Your task to perform on an android device: open app "Skype" (install if not already installed) and enter user name: "rumor@gmail.com" and password: "kinsman" Image 0: 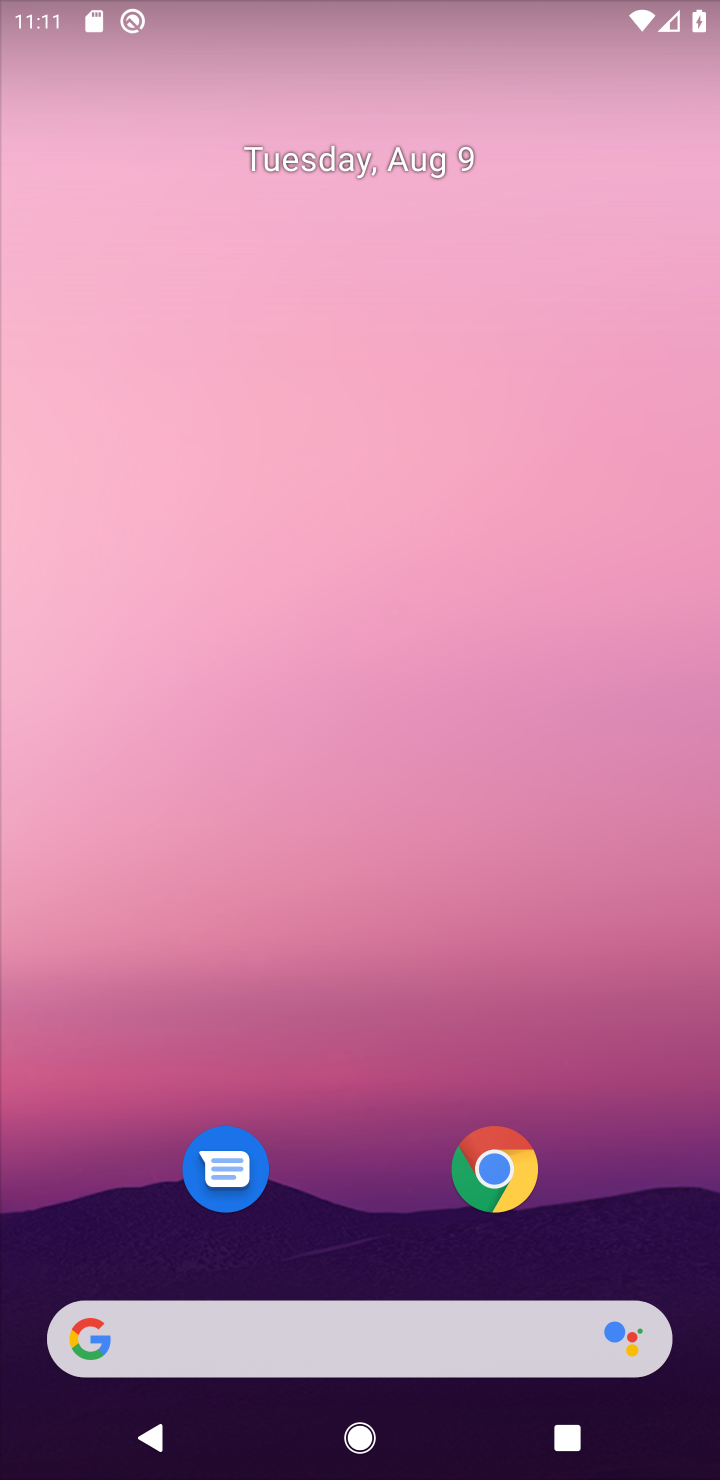
Step 0: drag from (602, 1206) to (604, 170)
Your task to perform on an android device: open app "Skype" (install if not already installed) and enter user name: "rumor@gmail.com" and password: "kinsman" Image 1: 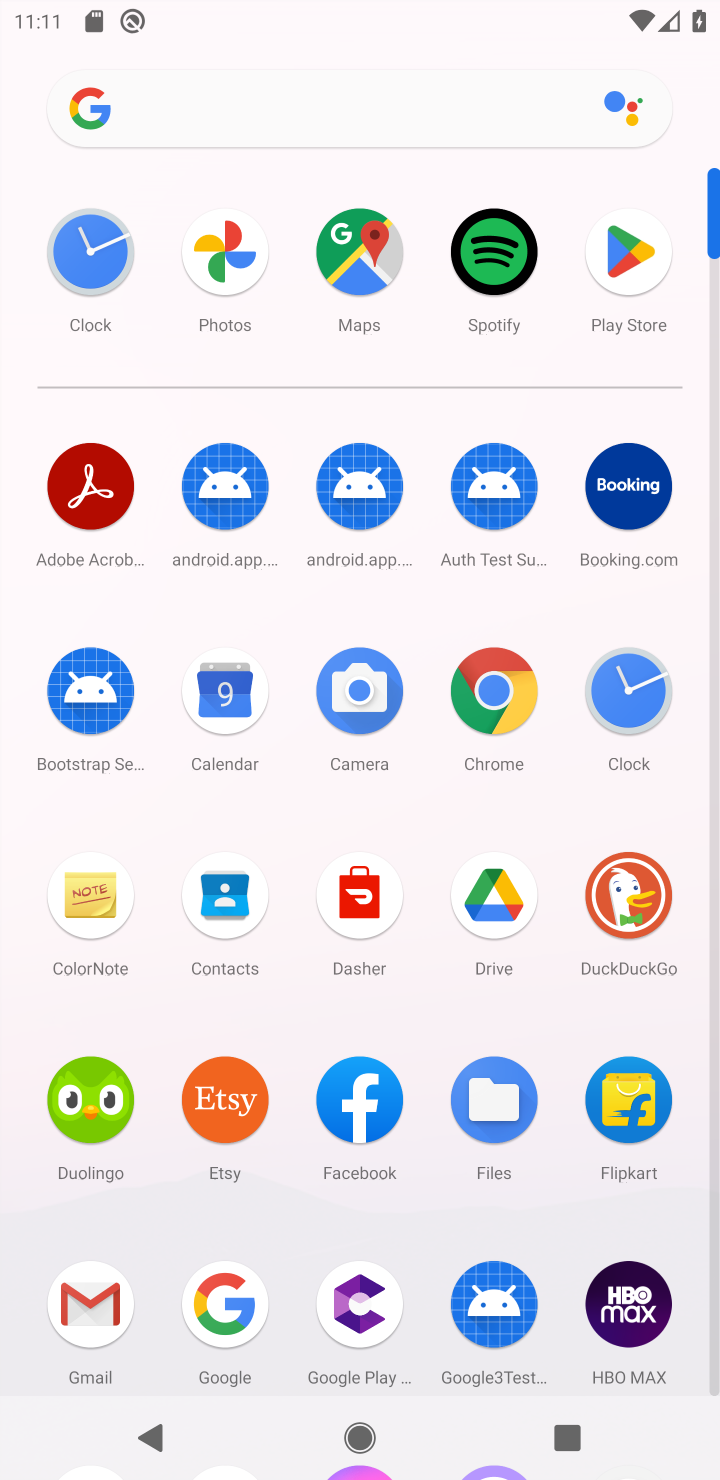
Step 1: click (630, 264)
Your task to perform on an android device: open app "Skype" (install if not already installed) and enter user name: "rumor@gmail.com" and password: "kinsman" Image 2: 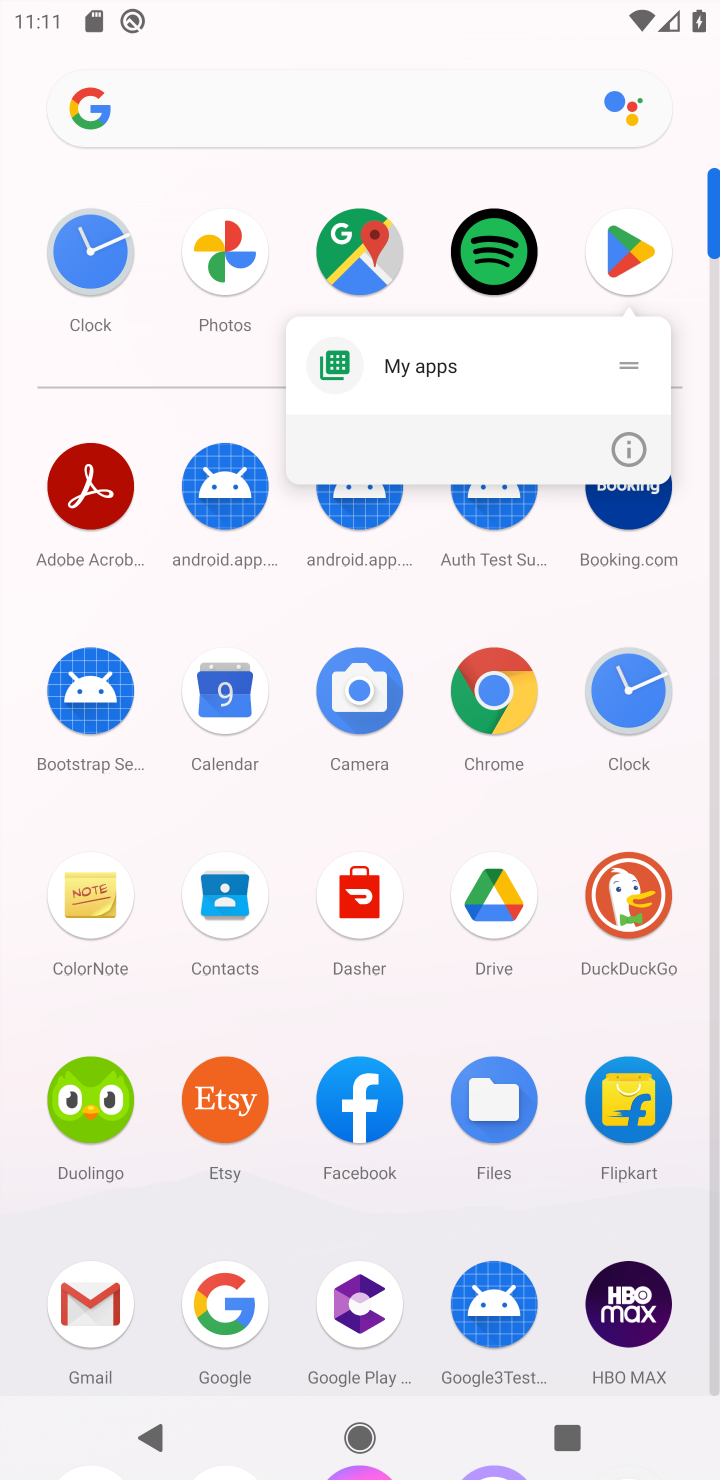
Step 2: click (617, 245)
Your task to perform on an android device: open app "Skype" (install if not already installed) and enter user name: "rumor@gmail.com" and password: "kinsman" Image 3: 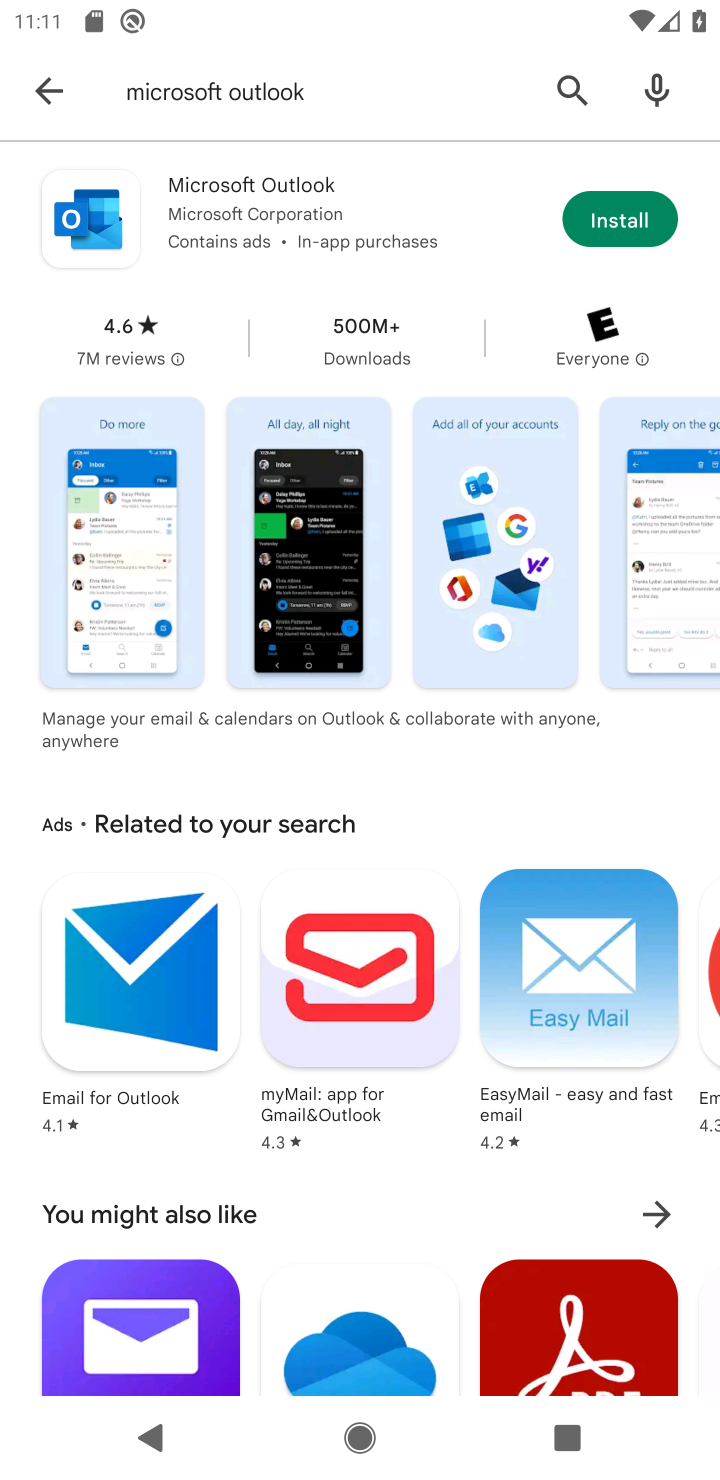
Step 3: click (575, 75)
Your task to perform on an android device: open app "Skype" (install if not already installed) and enter user name: "rumor@gmail.com" and password: "kinsman" Image 4: 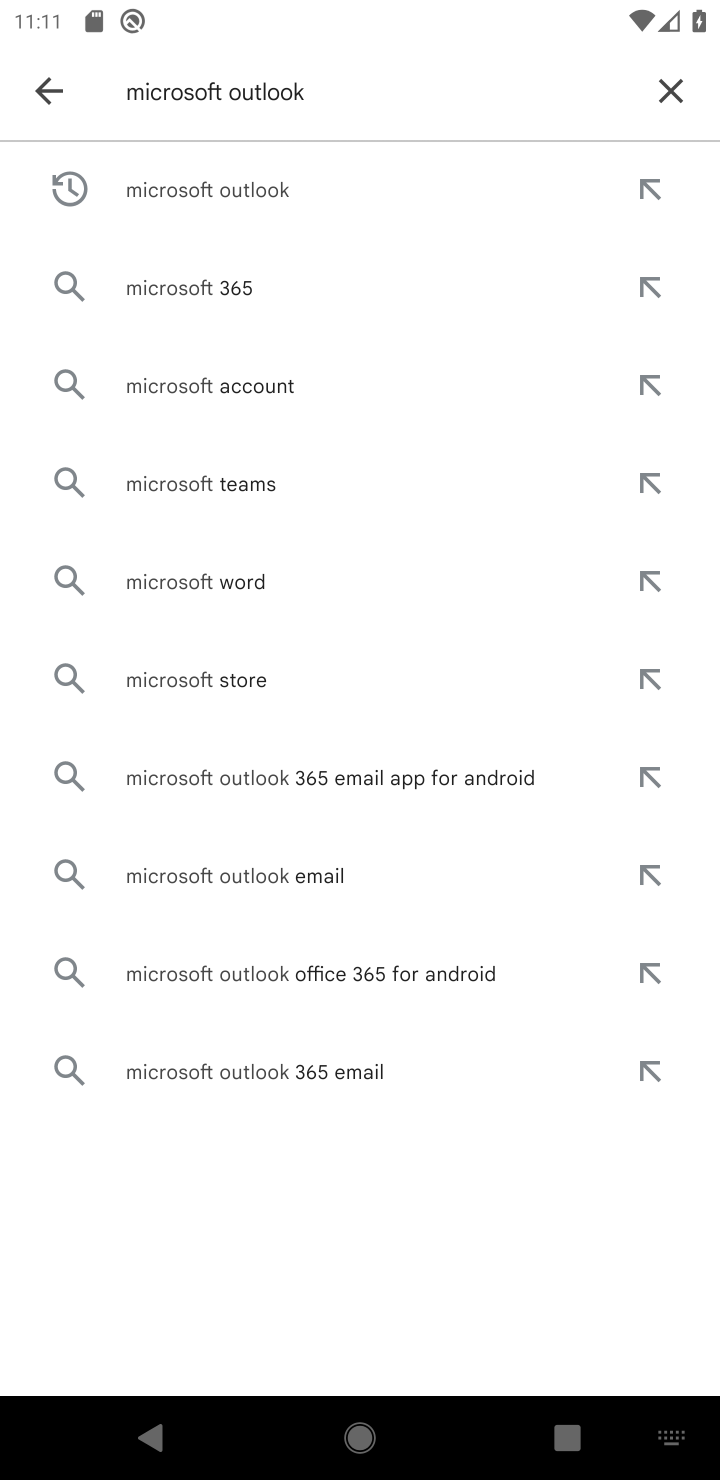
Step 4: click (668, 75)
Your task to perform on an android device: open app "Skype" (install if not already installed) and enter user name: "rumor@gmail.com" and password: "kinsman" Image 5: 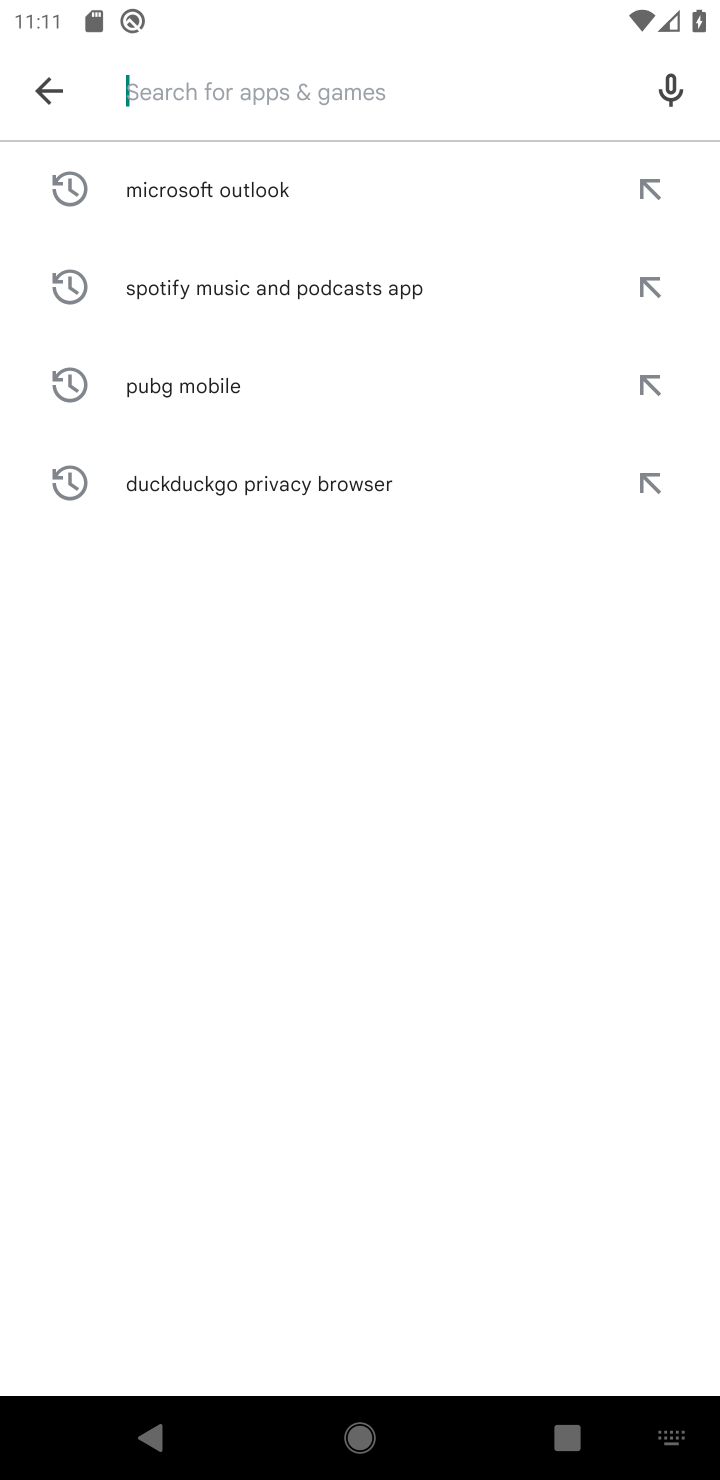
Step 5: type "skype"
Your task to perform on an android device: open app "Skype" (install if not already installed) and enter user name: "rumor@gmail.com" and password: "kinsman" Image 6: 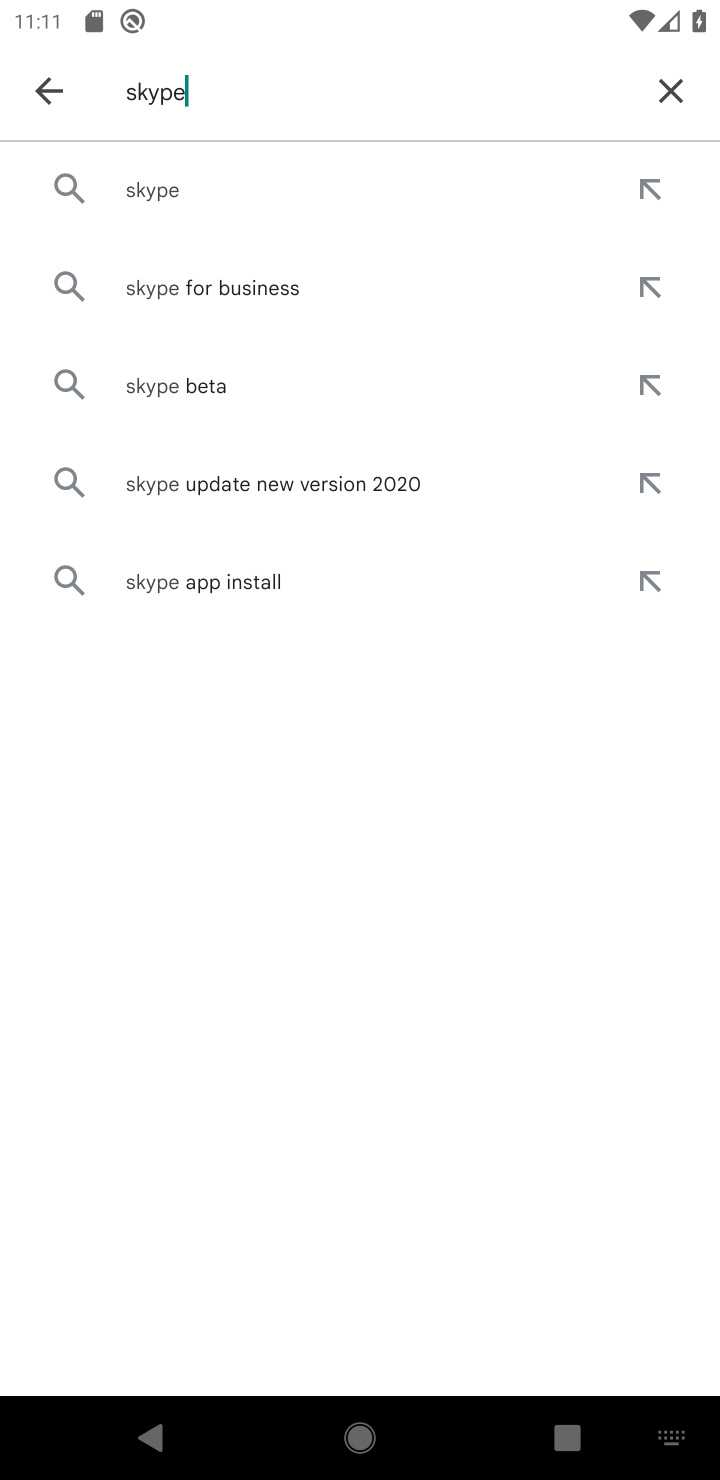
Step 6: click (180, 173)
Your task to perform on an android device: open app "Skype" (install if not already installed) and enter user name: "rumor@gmail.com" and password: "kinsman" Image 7: 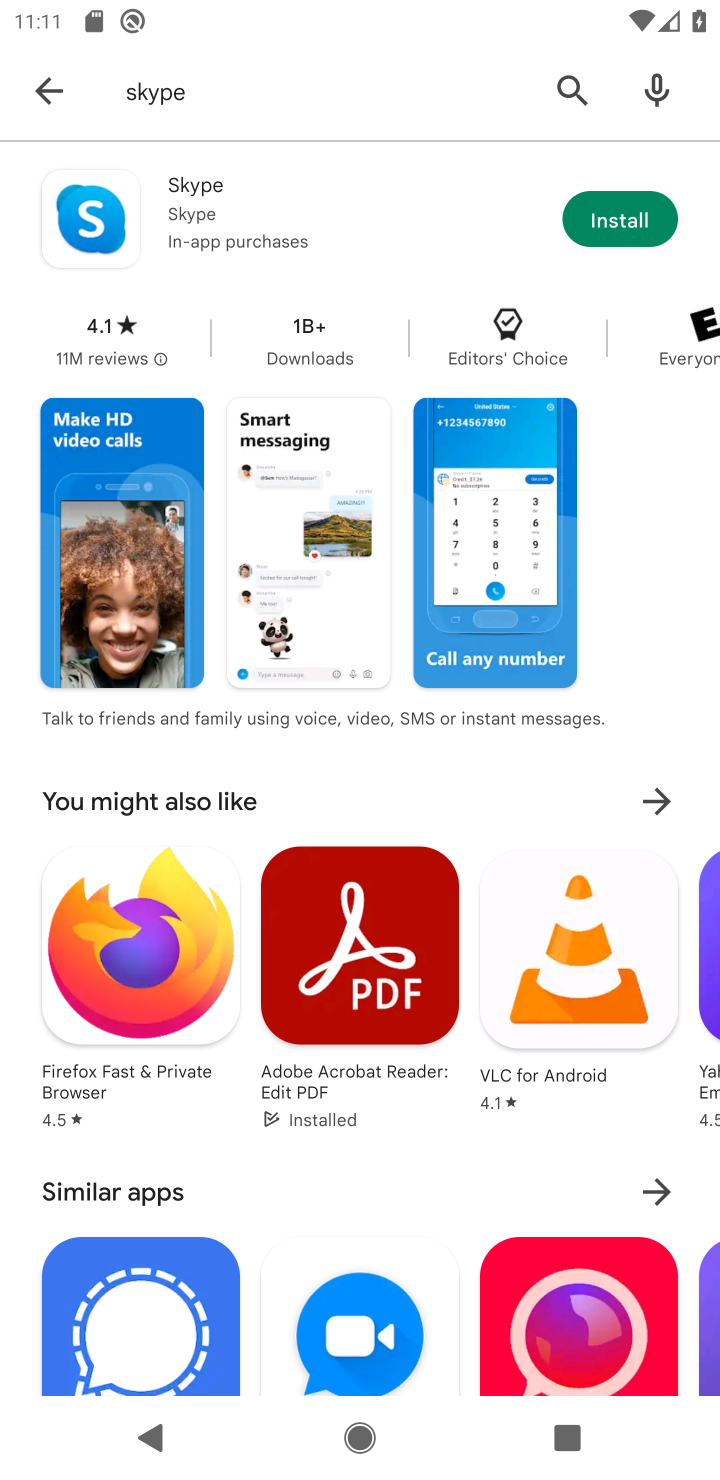
Step 7: click (619, 225)
Your task to perform on an android device: open app "Skype" (install if not already installed) and enter user name: "rumor@gmail.com" and password: "kinsman" Image 8: 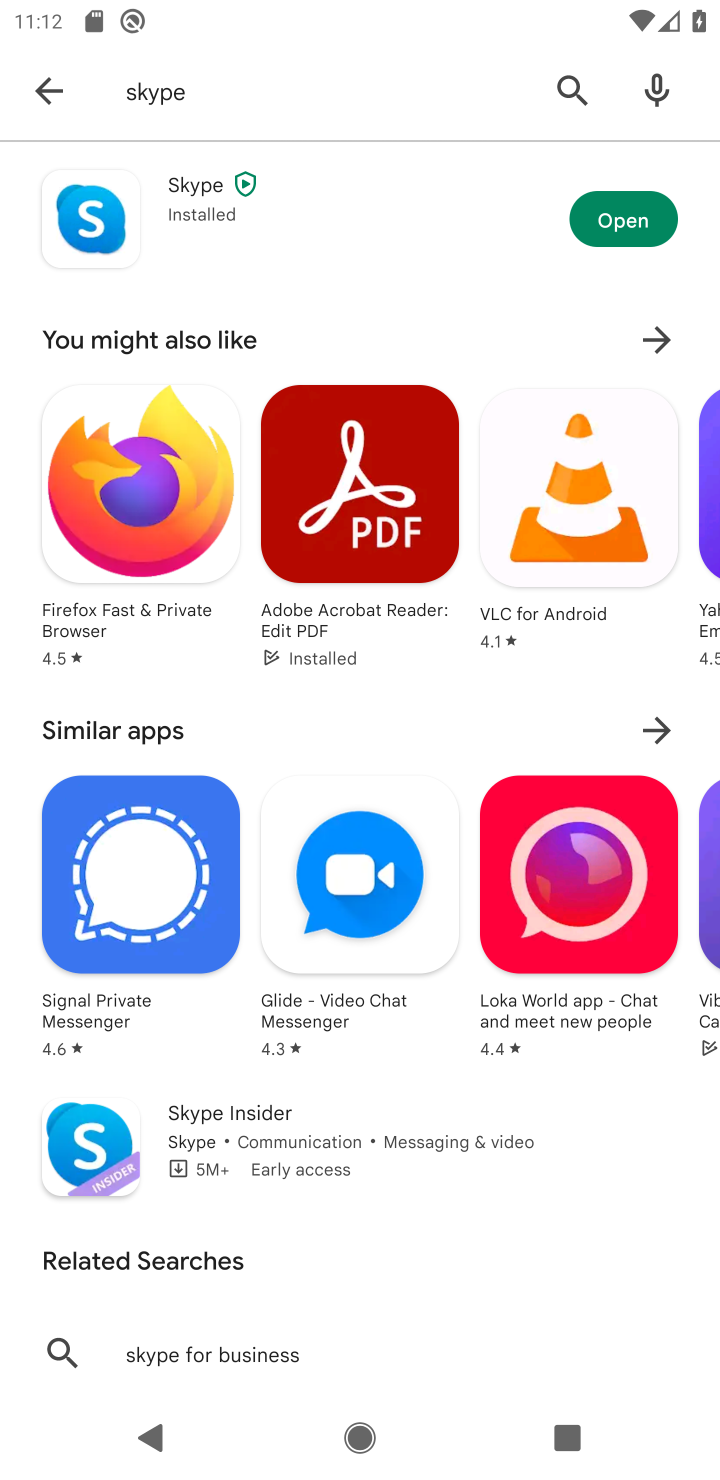
Step 8: click (644, 224)
Your task to perform on an android device: open app "Skype" (install if not already installed) and enter user name: "rumor@gmail.com" and password: "kinsman" Image 9: 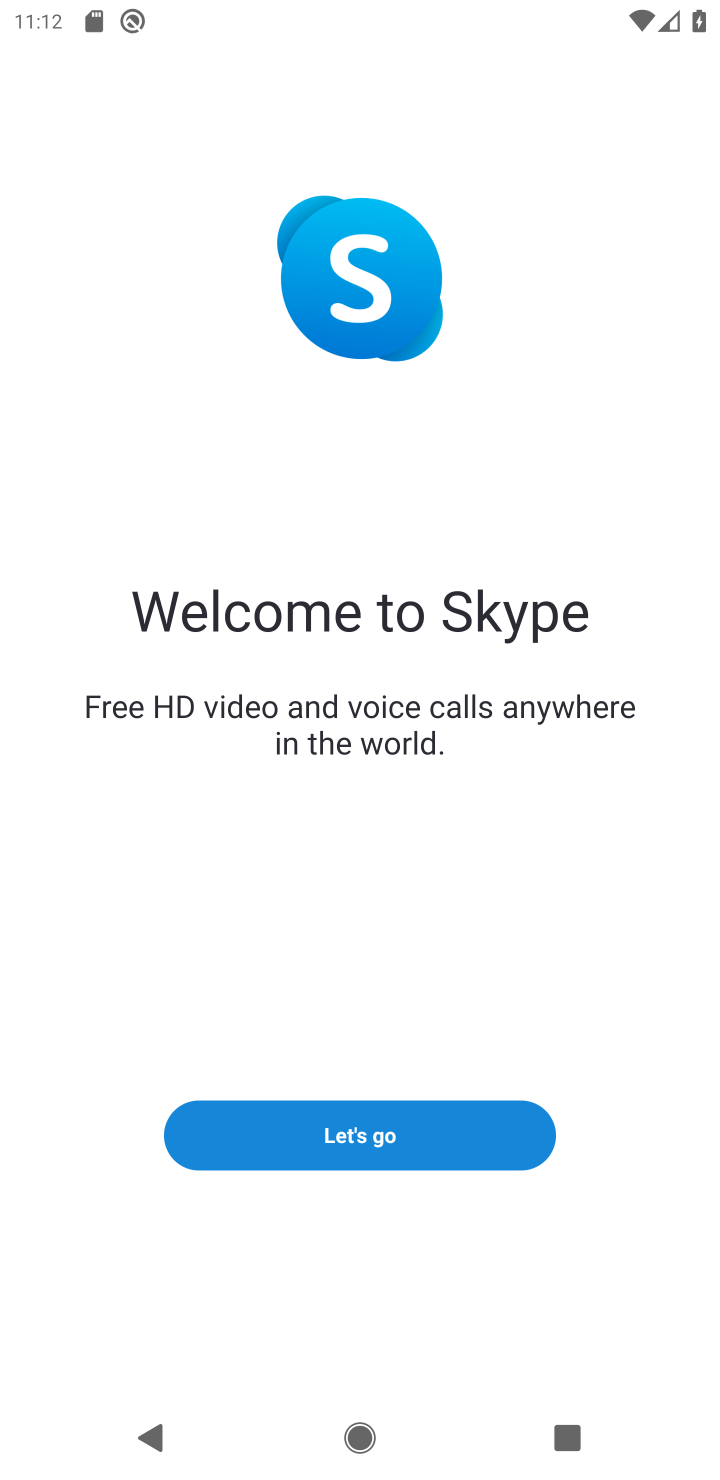
Step 9: click (433, 1133)
Your task to perform on an android device: open app "Skype" (install if not already installed) and enter user name: "rumor@gmail.com" and password: "kinsman" Image 10: 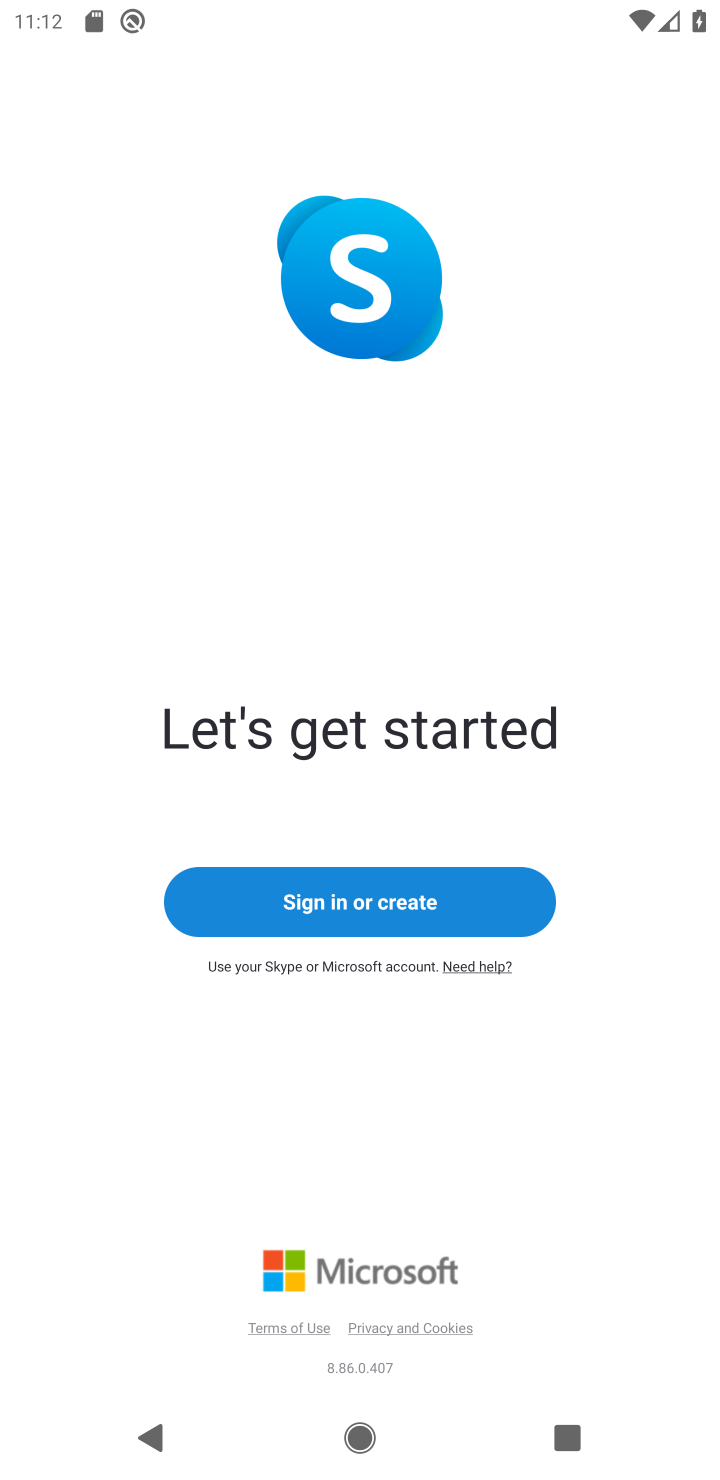
Step 10: click (377, 905)
Your task to perform on an android device: open app "Skype" (install if not already installed) and enter user name: "rumor@gmail.com" and password: "kinsman" Image 11: 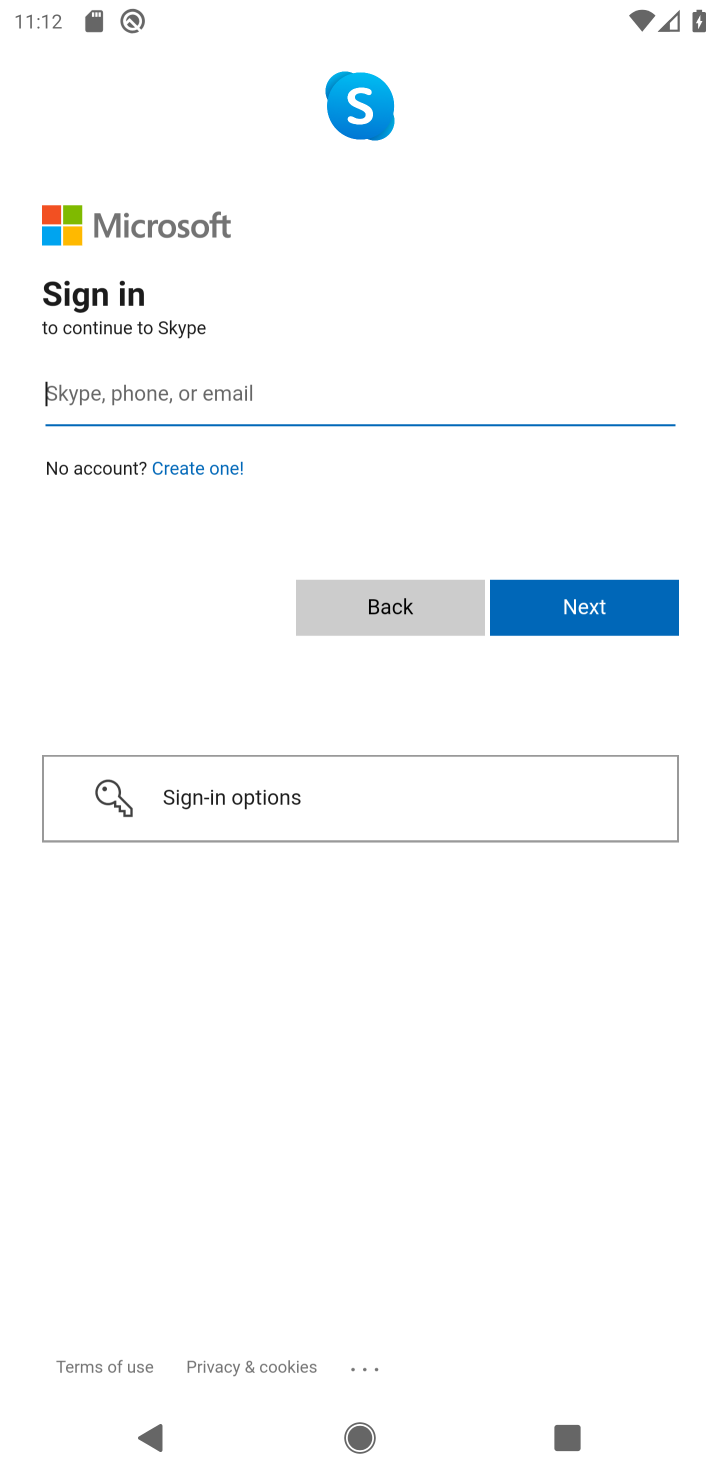
Step 11: click (268, 397)
Your task to perform on an android device: open app "Skype" (install if not already installed) and enter user name: "rumor@gmail.com" and password: "kinsman" Image 12: 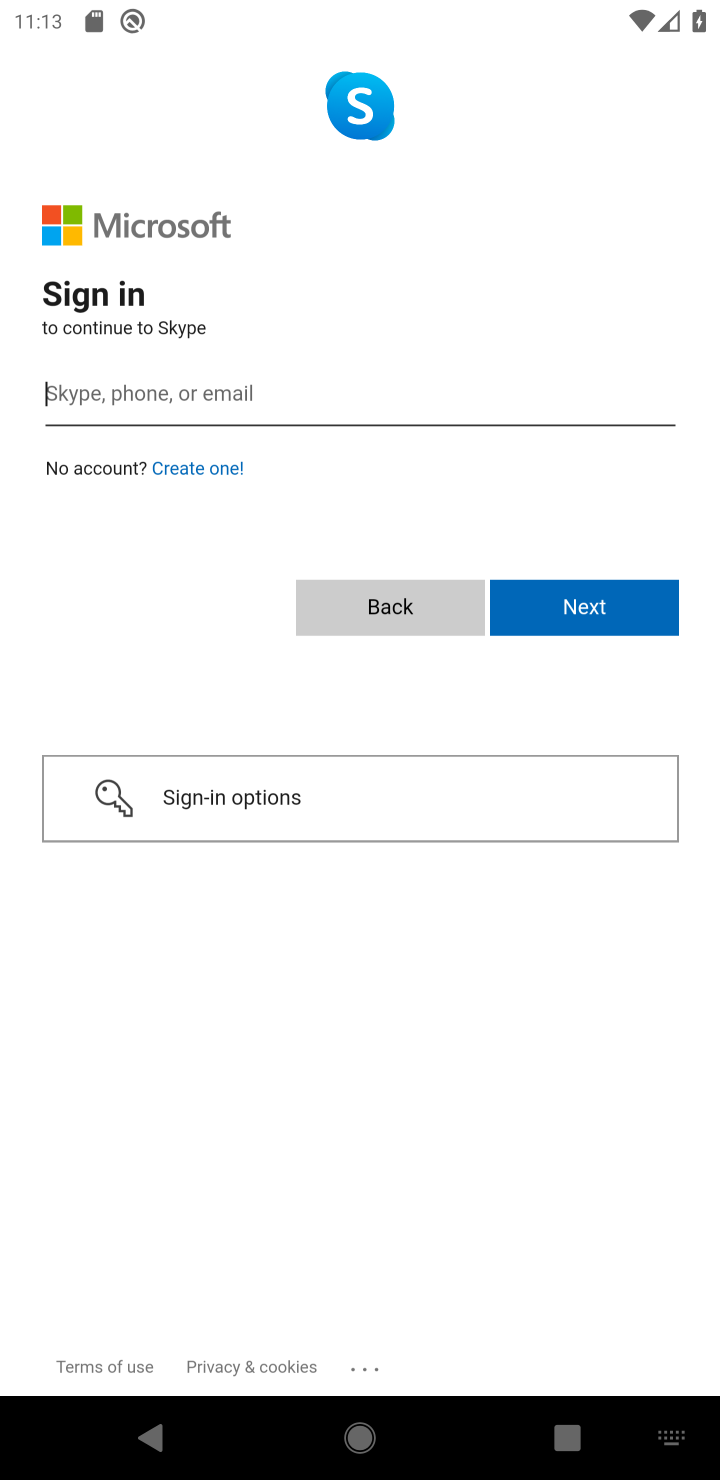
Step 12: type "rumor@gmail.com"
Your task to perform on an android device: open app "Skype" (install if not already installed) and enter user name: "rumor@gmail.com" and password: "kinsman" Image 13: 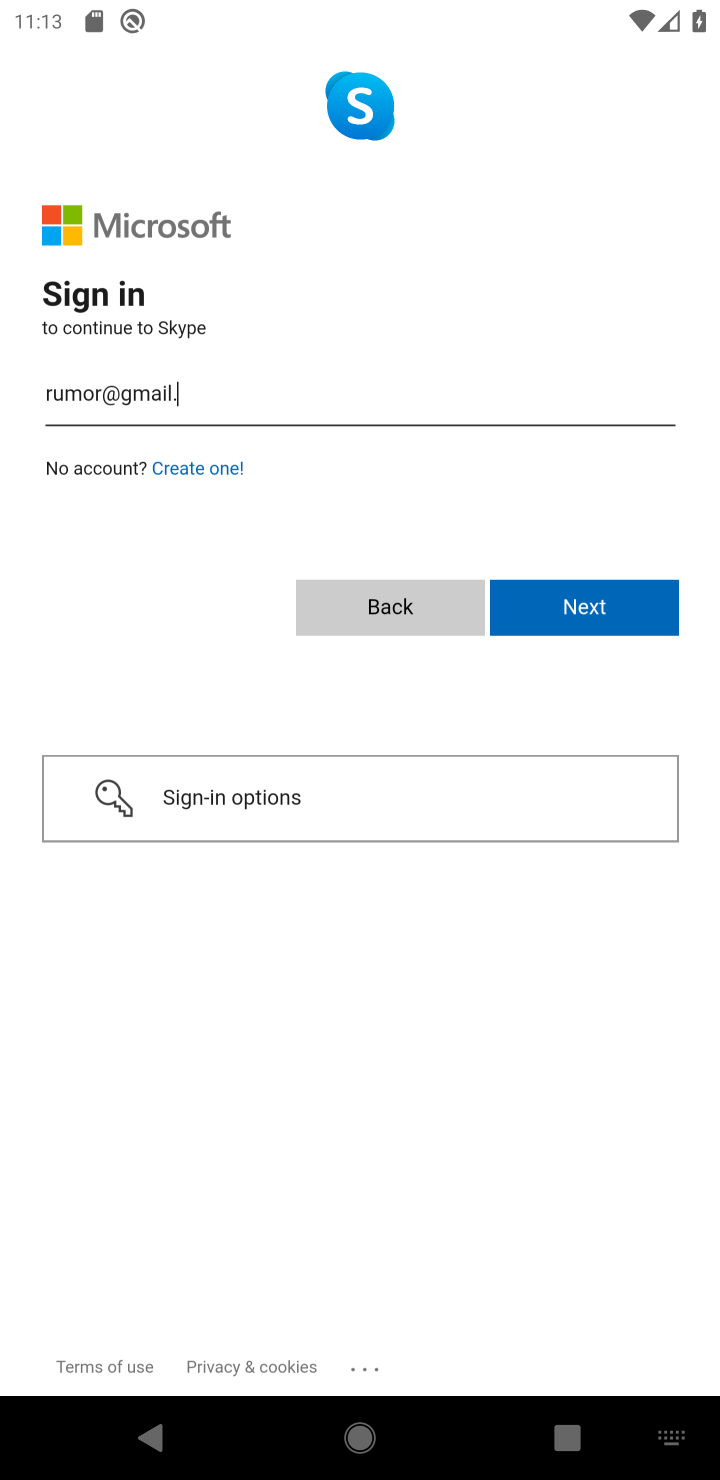
Step 13: press enter
Your task to perform on an android device: open app "Skype" (install if not already installed) and enter user name: "rumor@gmail.com" and password: "kinsman" Image 14: 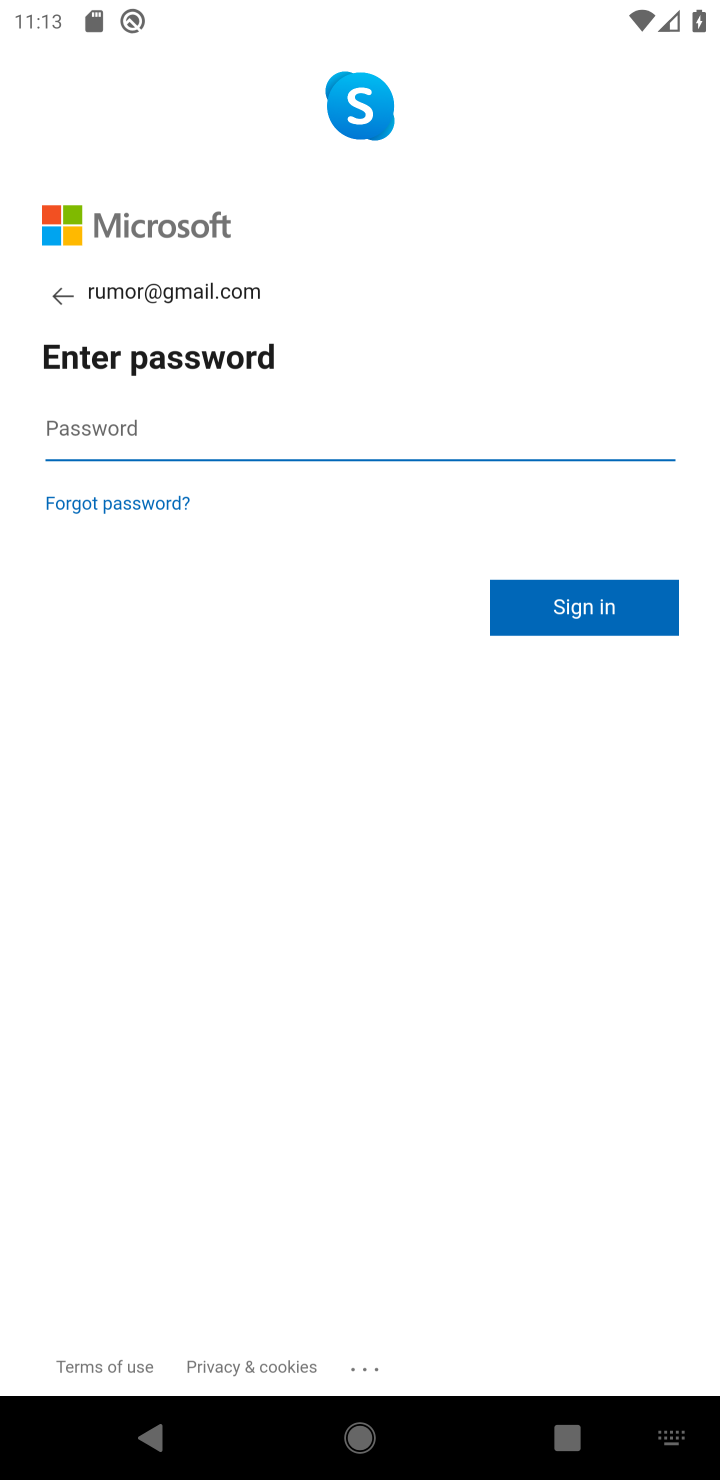
Step 14: type "kinsman"
Your task to perform on an android device: open app "Skype" (install if not already installed) and enter user name: "rumor@gmail.com" and password: "kinsman" Image 15: 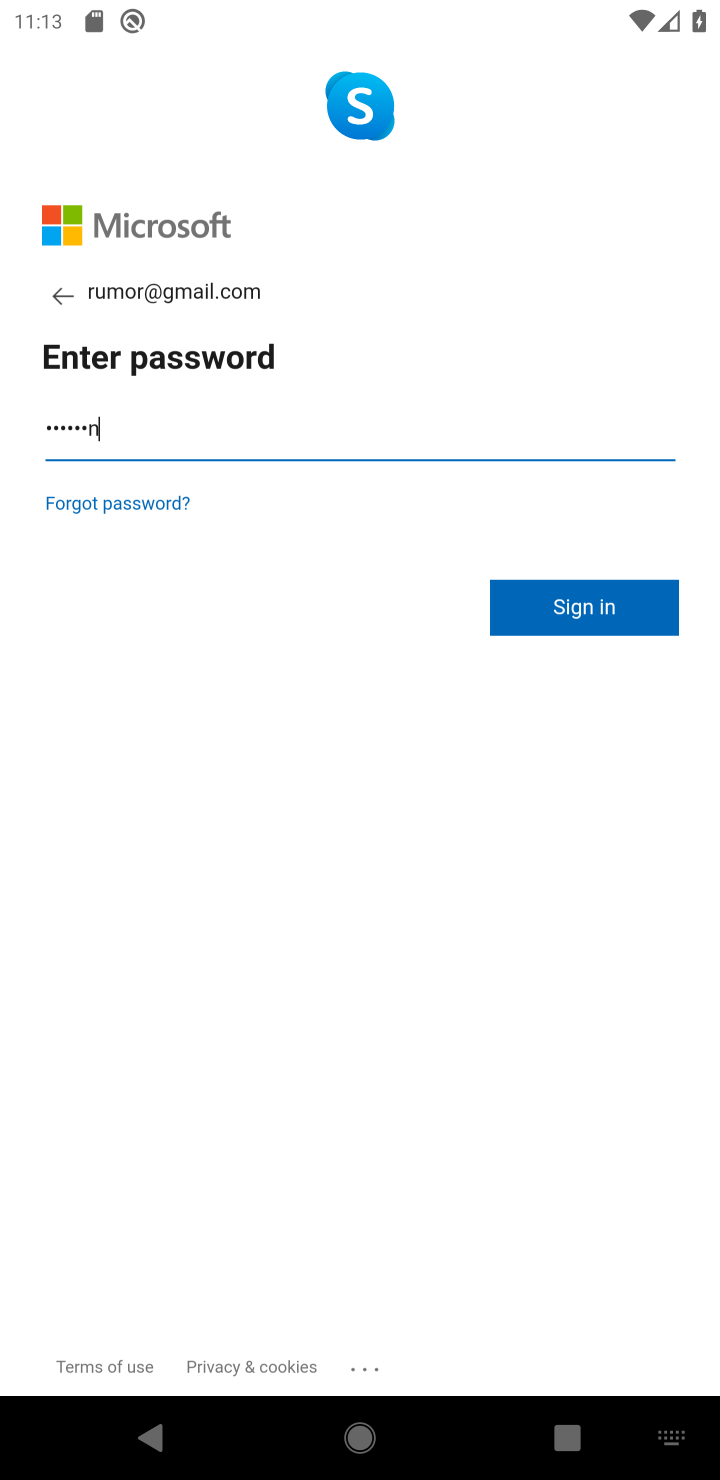
Step 15: press enter
Your task to perform on an android device: open app "Skype" (install if not already installed) and enter user name: "rumor@gmail.com" and password: "kinsman" Image 16: 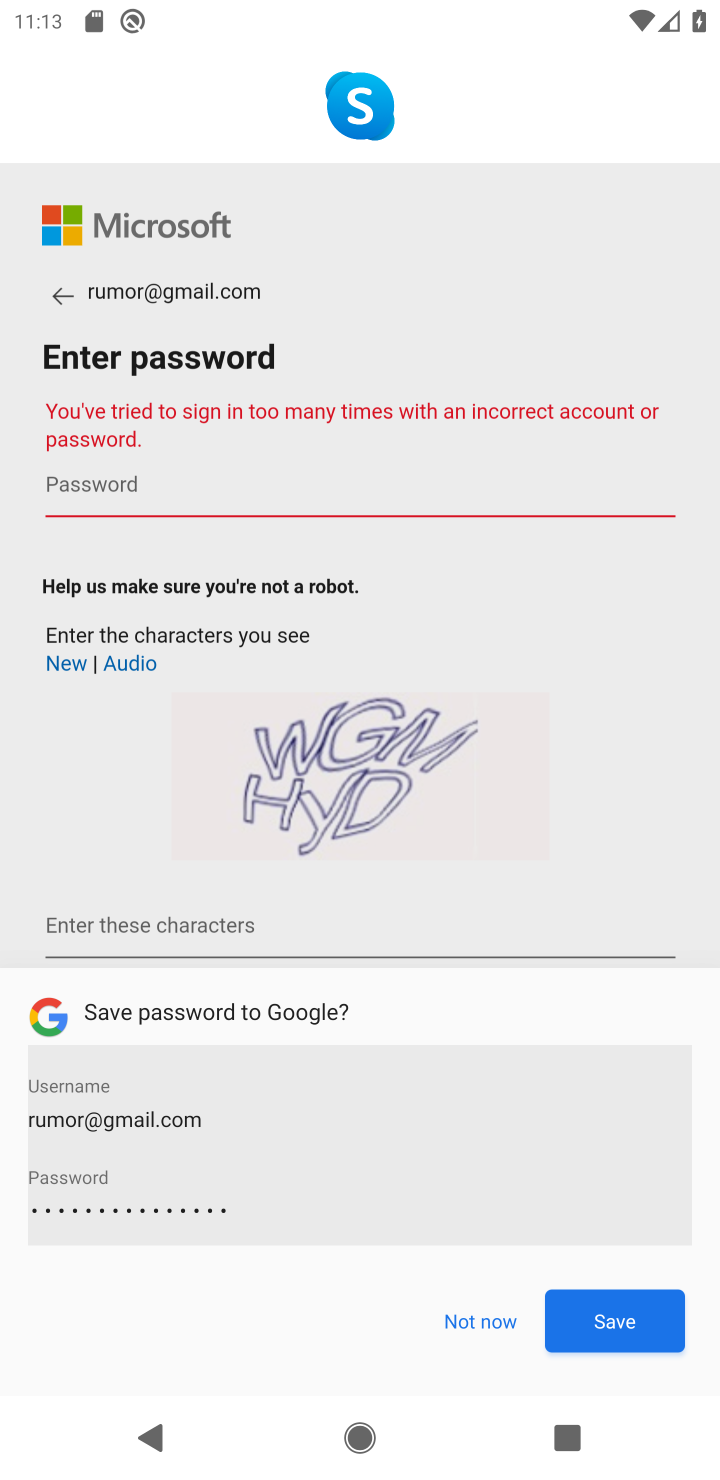
Step 16: task complete